Your task to perform on an android device: toggle show notifications on the lock screen Image 0: 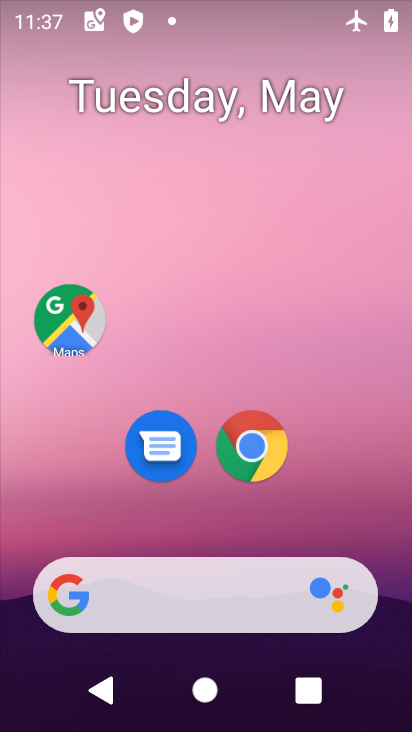
Step 0: drag from (232, 727) to (245, 199)
Your task to perform on an android device: toggle show notifications on the lock screen Image 1: 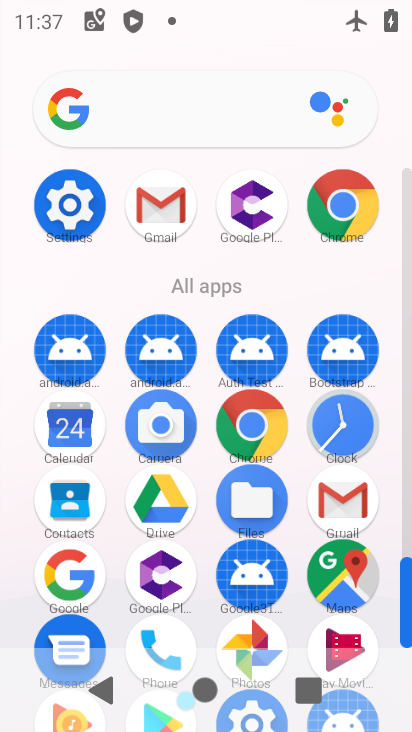
Step 1: click (63, 188)
Your task to perform on an android device: toggle show notifications on the lock screen Image 2: 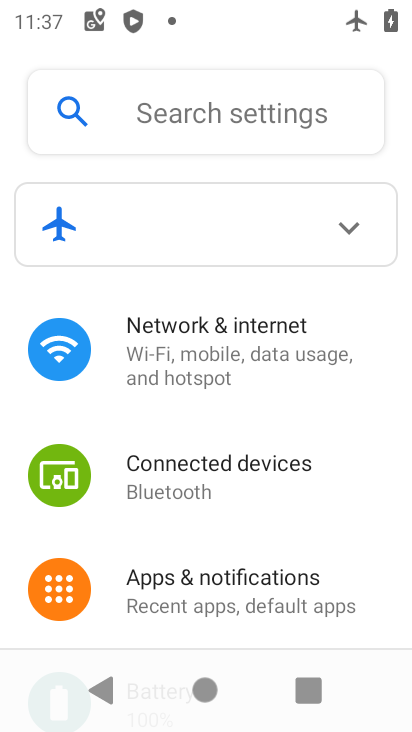
Step 2: click (208, 592)
Your task to perform on an android device: toggle show notifications on the lock screen Image 3: 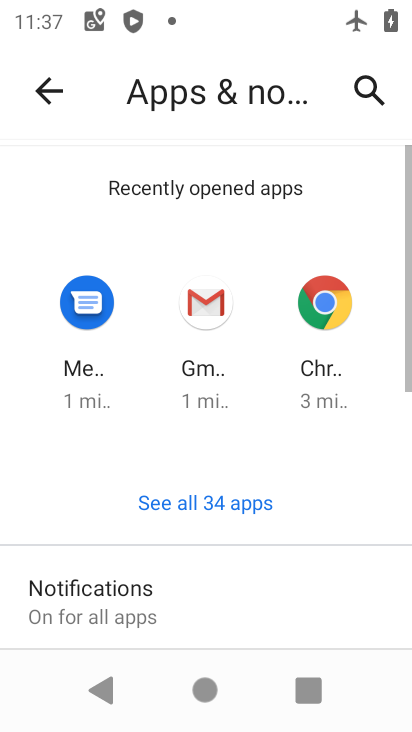
Step 3: drag from (210, 618) to (210, 354)
Your task to perform on an android device: toggle show notifications on the lock screen Image 4: 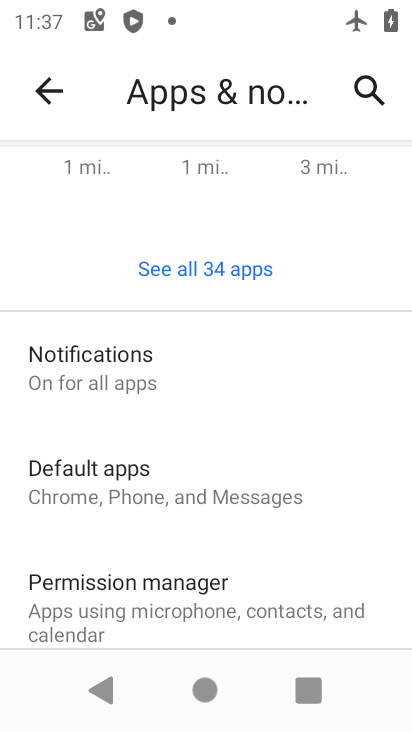
Step 4: click (80, 365)
Your task to perform on an android device: toggle show notifications on the lock screen Image 5: 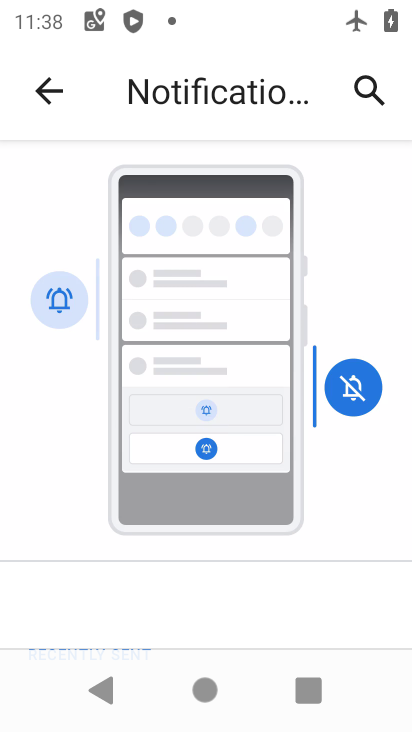
Step 5: drag from (135, 608) to (153, 292)
Your task to perform on an android device: toggle show notifications on the lock screen Image 6: 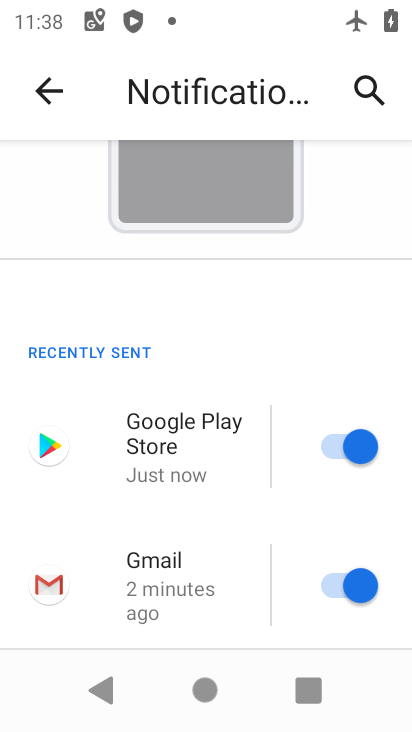
Step 6: drag from (214, 470) to (218, 285)
Your task to perform on an android device: toggle show notifications on the lock screen Image 7: 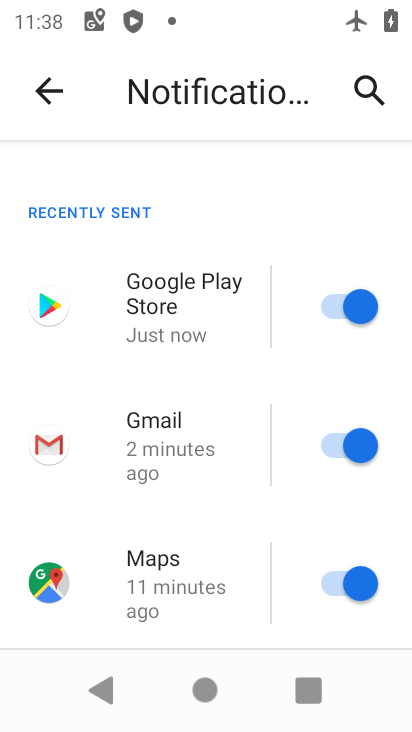
Step 7: drag from (205, 625) to (205, 284)
Your task to perform on an android device: toggle show notifications on the lock screen Image 8: 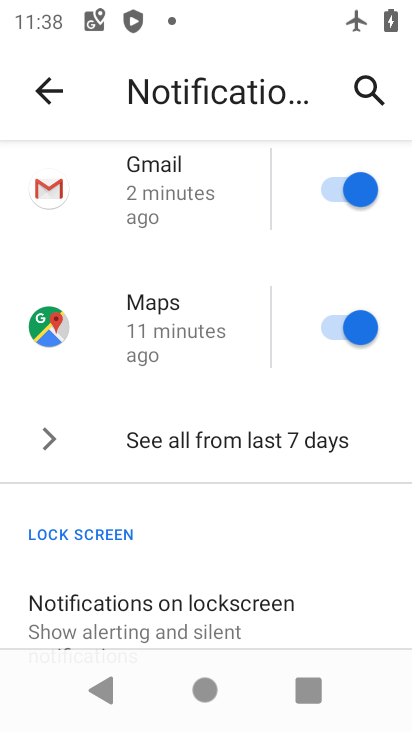
Step 8: drag from (207, 601) to (203, 238)
Your task to perform on an android device: toggle show notifications on the lock screen Image 9: 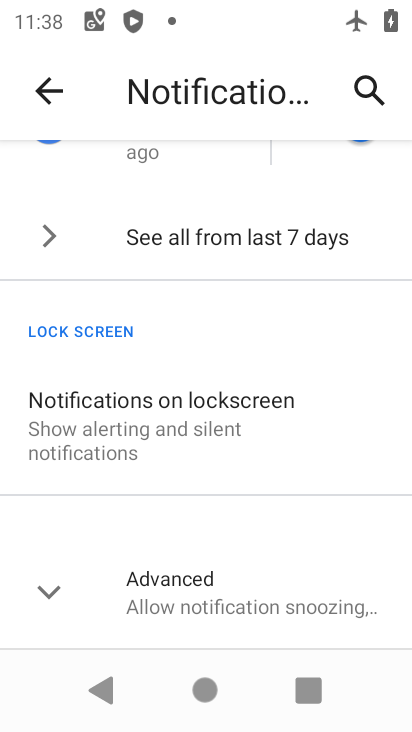
Step 9: click (138, 427)
Your task to perform on an android device: toggle show notifications on the lock screen Image 10: 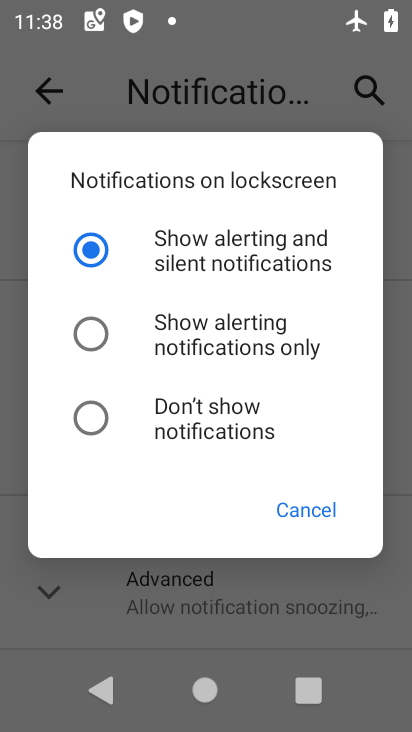
Step 10: click (76, 342)
Your task to perform on an android device: toggle show notifications on the lock screen Image 11: 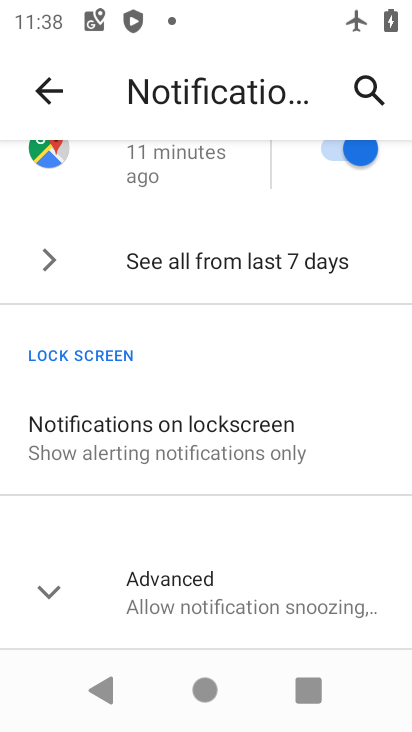
Step 11: task complete